Your task to perform on an android device: check data usage Image 0: 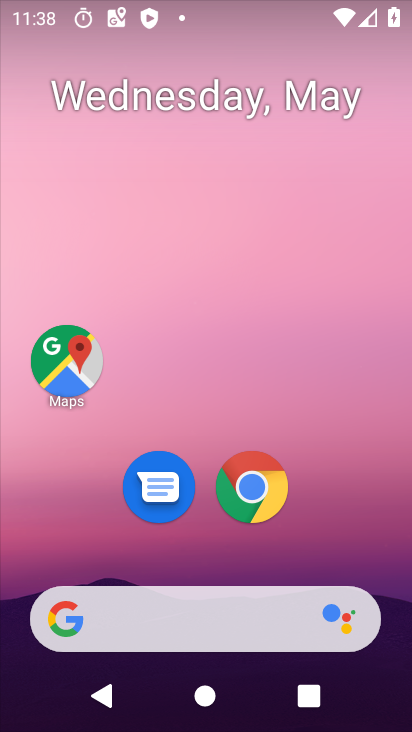
Step 0: drag from (282, 606) to (302, 14)
Your task to perform on an android device: check data usage Image 1: 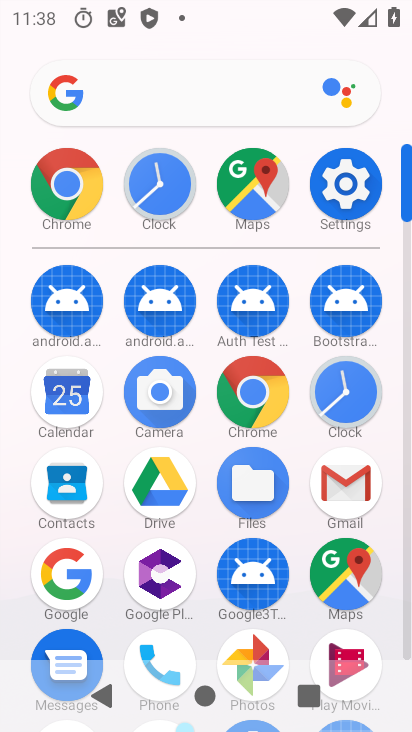
Step 1: drag from (308, 639) to (287, 7)
Your task to perform on an android device: check data usage Image 2: 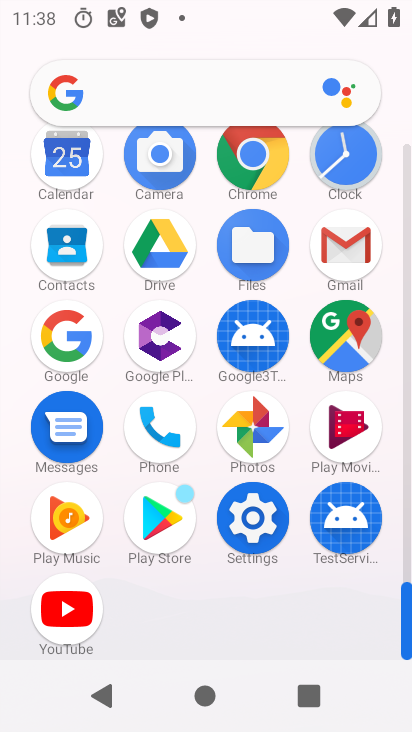
Step 2: drag from (302, 278) to (267, 626)
Your task to perform on an android device: check data usage Image 3: 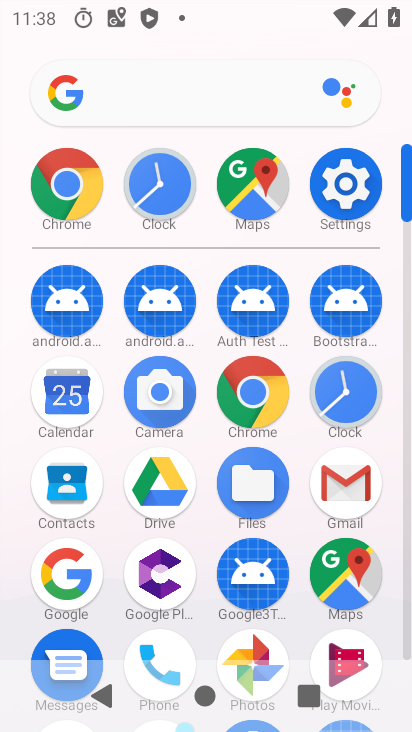
Step 3: click (365, 193)
Your task to perform on an android device: check data usage Image 4: 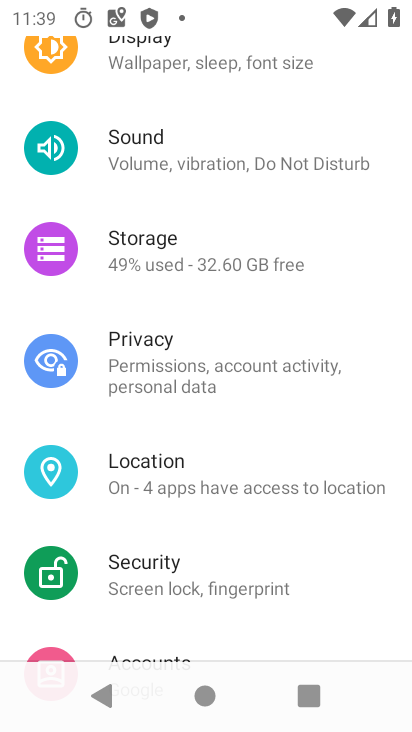
Step 4: drag from (342, 129) to (212, 652)
Your task to perform on an android device: check data usage Image 5: 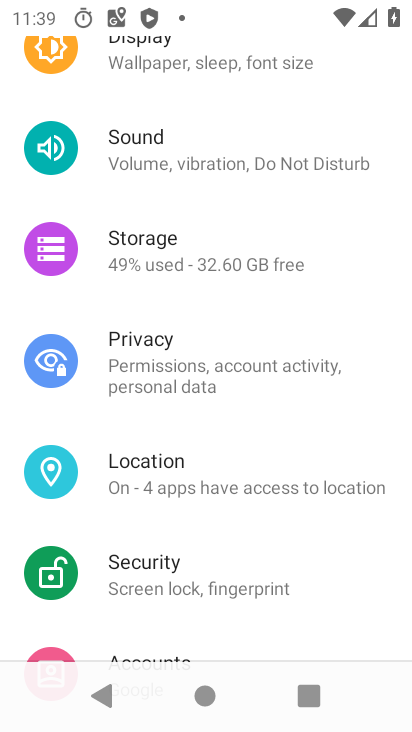
Step 5: drag from (226, 122) to (265, 650)
Your task to perform on an android device: check data usage Image 6: 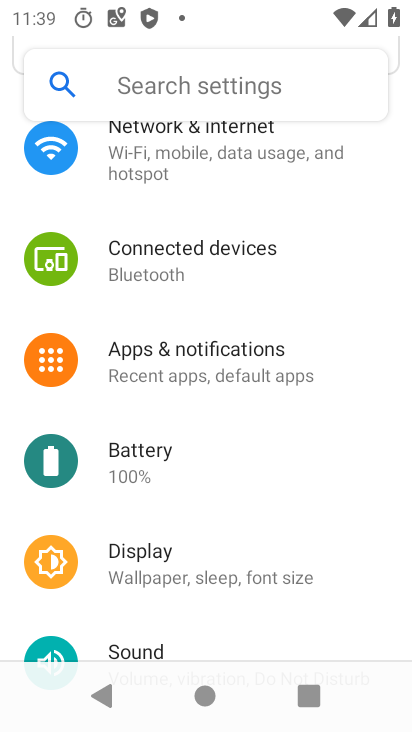
Step 6: click (227, 161)
Your task to perform on an android device: check data usage Image 7: 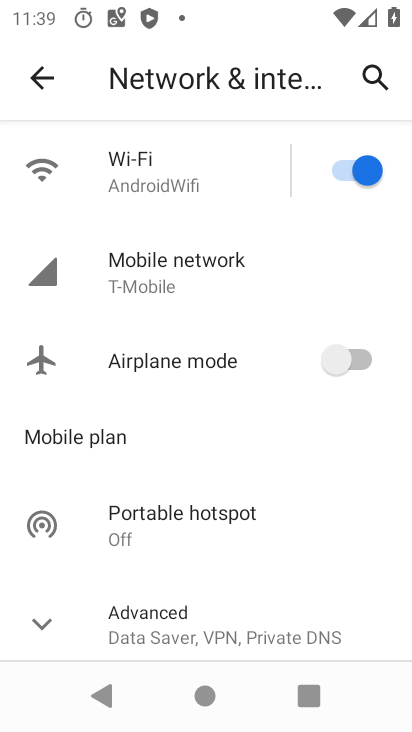
Step 7: drag from (211, 622) to (238, 215)
Your task to perform on an android device: check data usage Image 8: 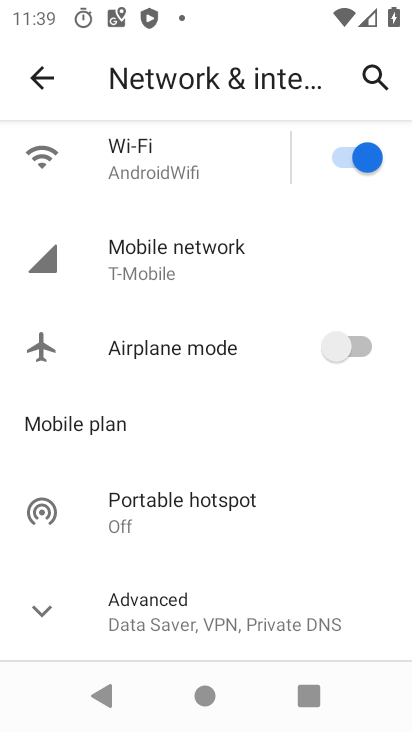
Step 8: click (145, 268)
Your task to perform on an android device: check data usage Image 9: 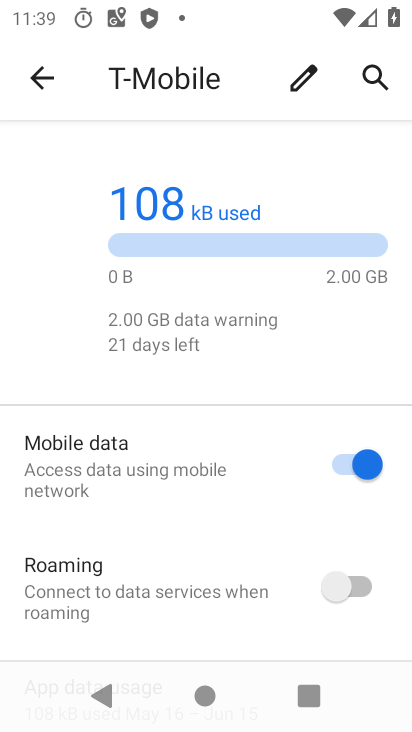
Step 9: click (243, 265)
Your task to perform on an android device: check data usage Image 10: 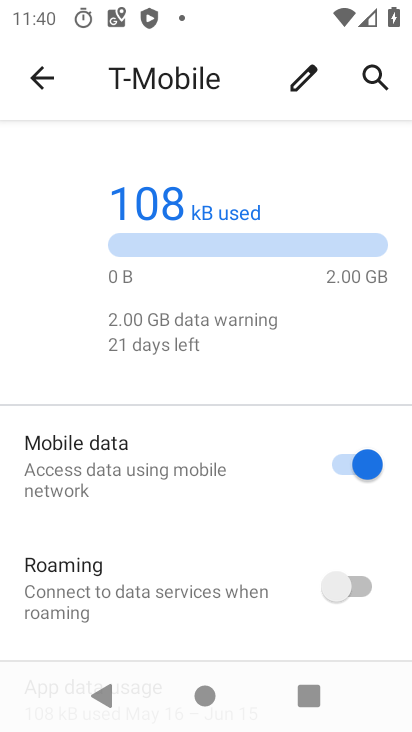
Step 10: task complete